Your task to perform on an android device: check battery use Image 0: 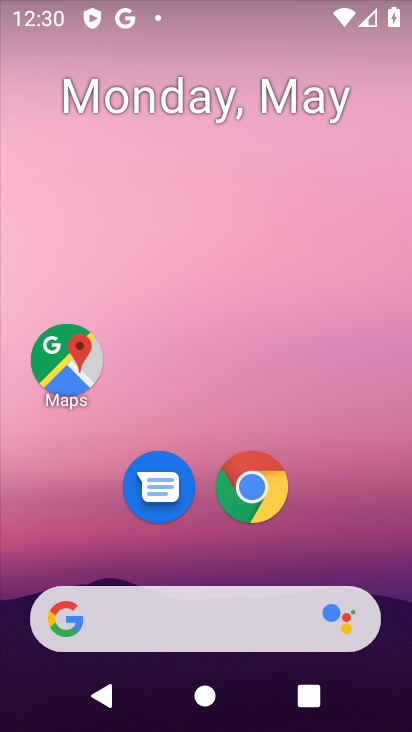
Step 0: drag from (307, 560) to (240, 110)
Your task to perform on an android device: check battery use Image 1: 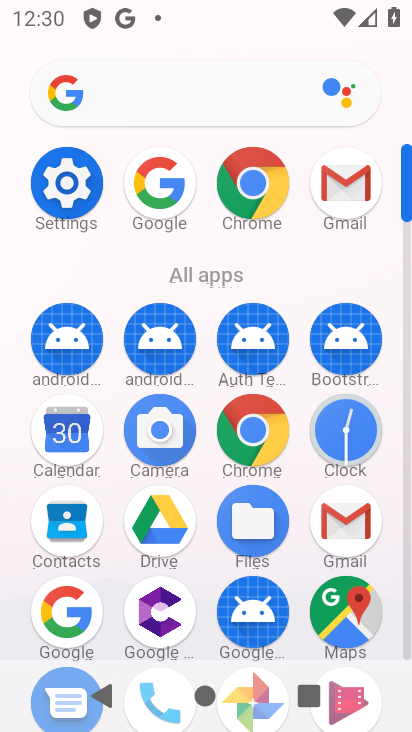
Step 1: click (68, 185)
Your task to perform on an android device: check battery use Image 2: 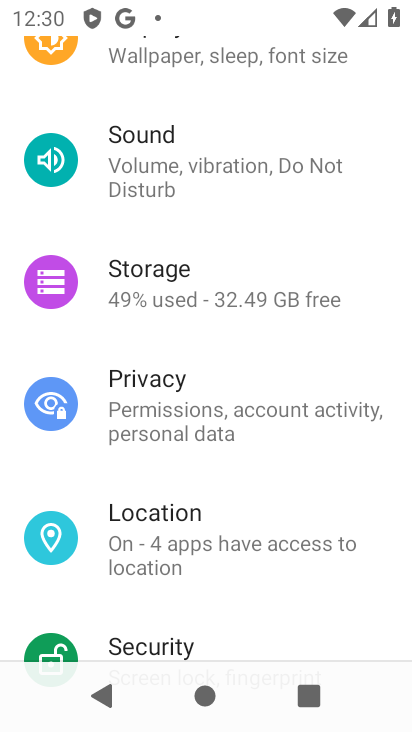
Step 2: drag from (187, 350) to (202, 489)
Your task to perform on an android device: check battery use Image 3: 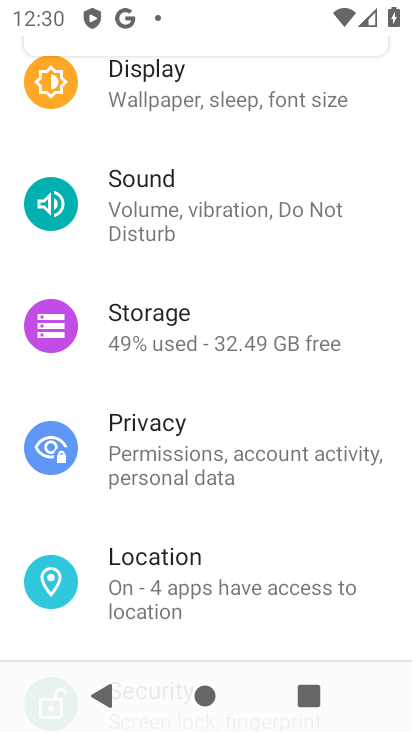
Step 3: drag from (201, 266) to (235, 605)
Your task to perform on an android device: check battery use Image 4: 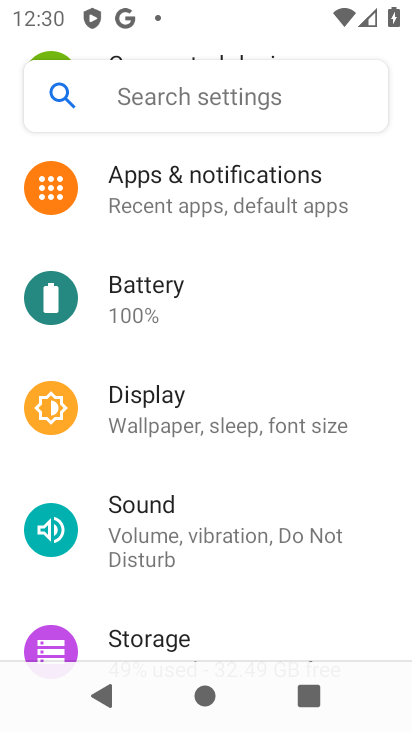
Step 4: click (154, 298)
Your task to perform on an android device: check battery use Image 5: 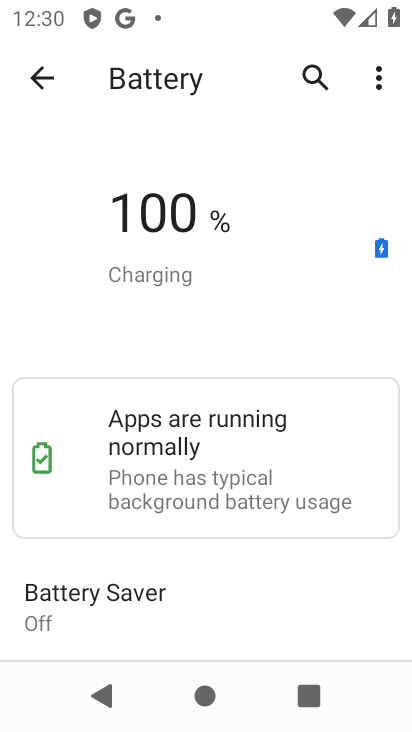
Step 5: click (380, 80)
Your task to perform on an android device: check battery use Image 6: 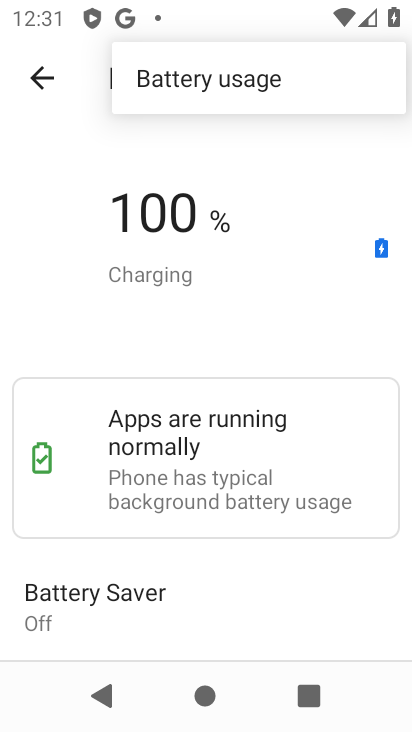
Step 6: click (225, 84)
Your task to perform on an android device: check battery use Image 7: 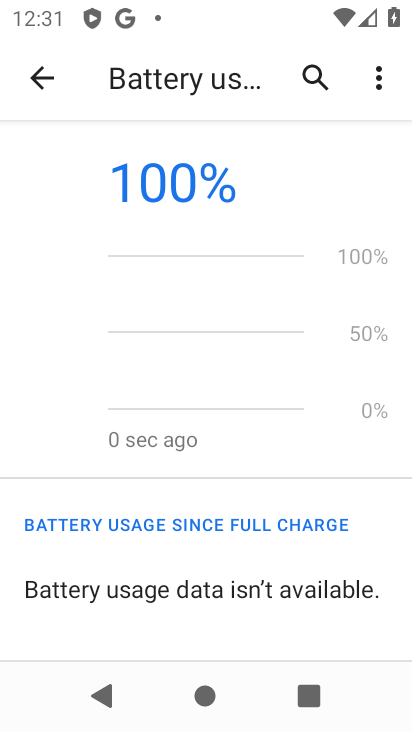
Step 7: task complete